Your task to perform on an android device: add a contact Image 0: 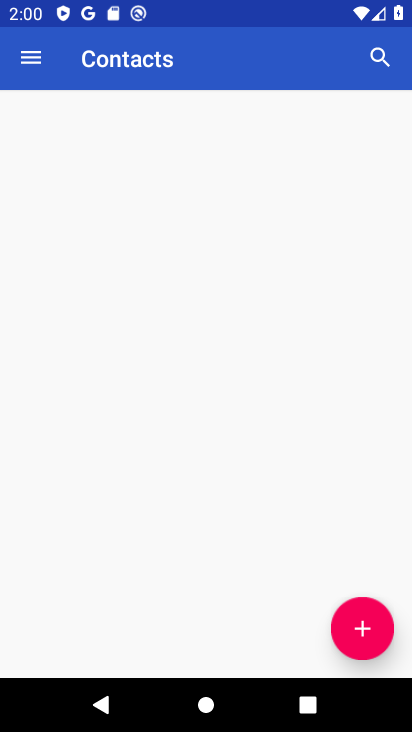
Step 0: press home button
Your task to perform on an android device: add a contact Image 1: 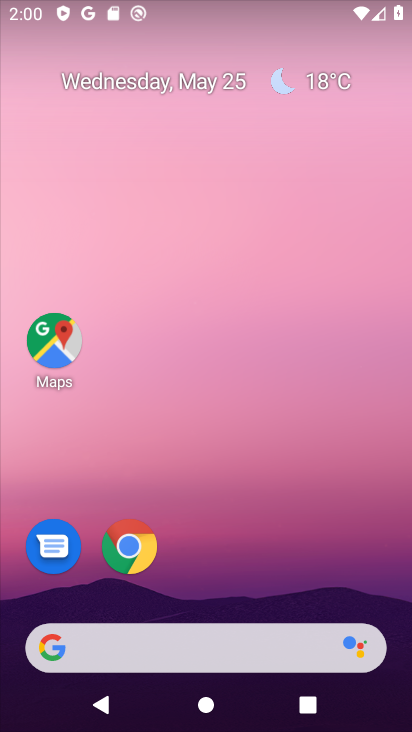
Step 1: drag from (181, 579) to (236, 39)
Your task to perform on an android device: add a contact Image 2: 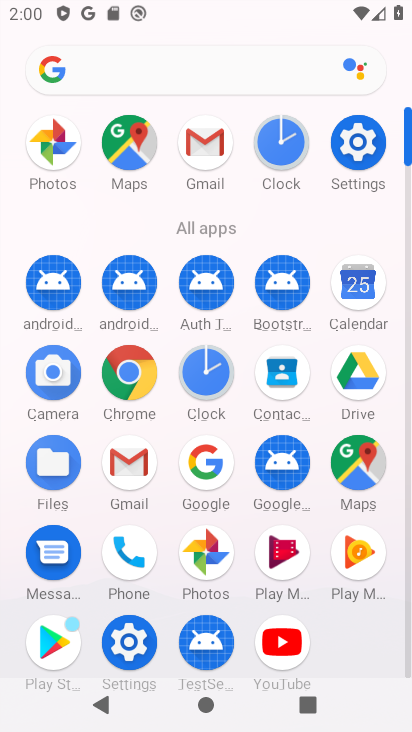
Step 2: click (278, 380)
Your task to perform on an android device: add a contact Image 3: 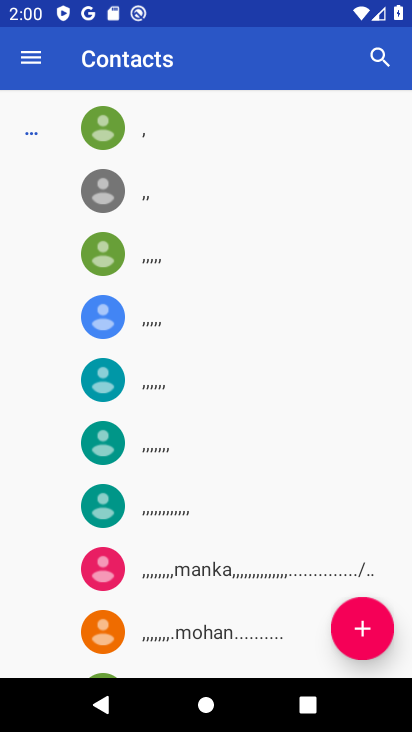
Step 3: click (355, 632)
Your task to perform on an android device: add a contact Image 4: 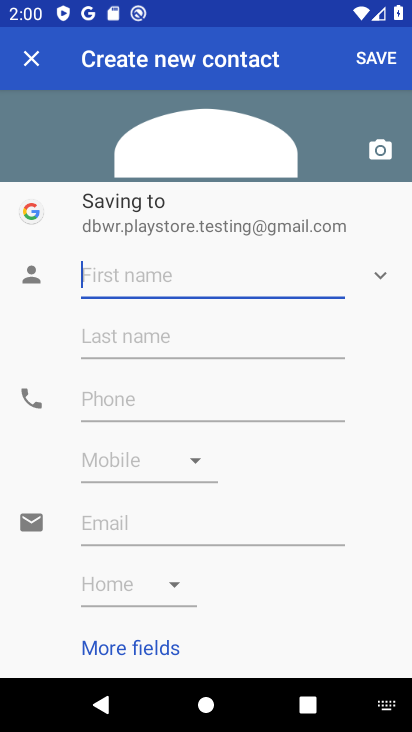
Step 4: type "demm"
Your task to perform on an android device: add a contact Image 5: 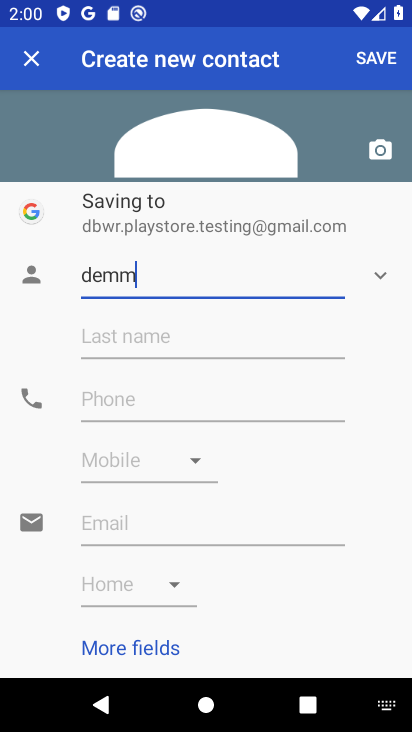
Step 5: click (385, 55)
Your task to perform on an android device: add a contact Image 6: 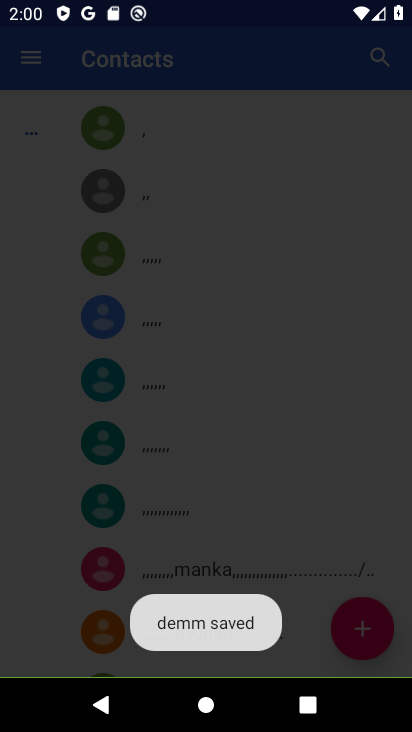
Step 6: task complete